Your task to perform on an android device: open device folders in google photos Image 0: 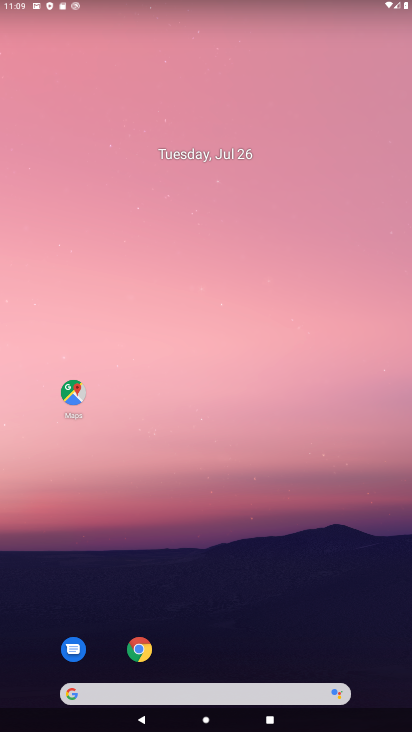
Step 0: drag from (217, 612) to (197, 125)
Your task to perform on an android device: open device folders in google photos Image 1: 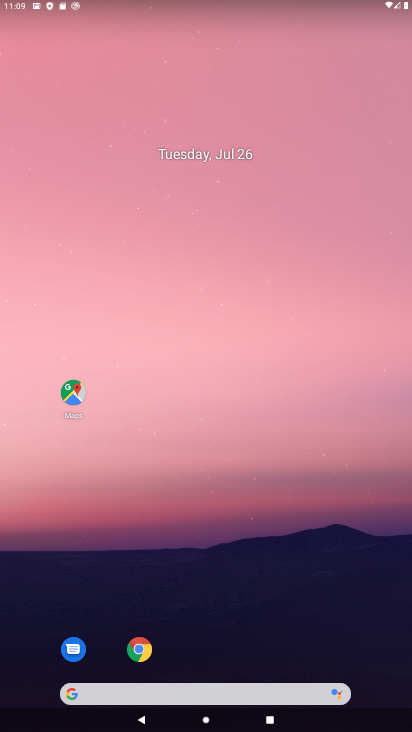
Step 1: drag from (304, 538) to (252, 257)
Your task to perform on an android device: open device folders in google photos Image 2: 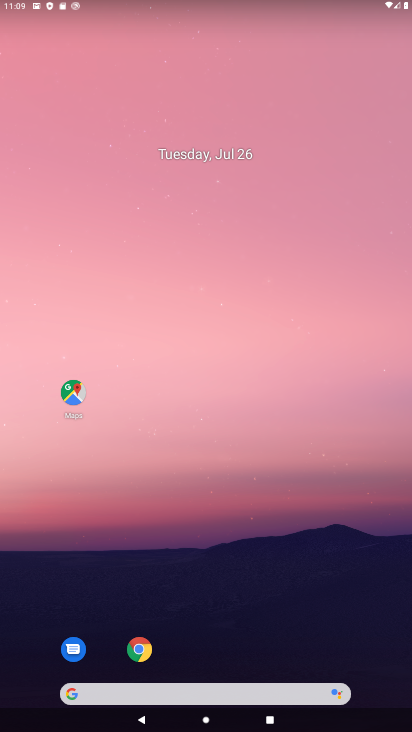
Step 2: drag from (302, 592) to (283, 260)
Your task to perform on an android device: open device folders in google photos Image 3: 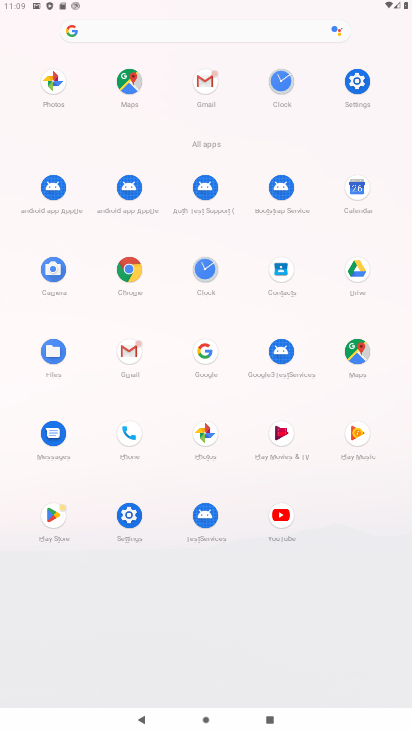
Step 3: drag from (320, 491) to (197, 41)
Your task to perform on an android device: open device folders in google photos Image 4: 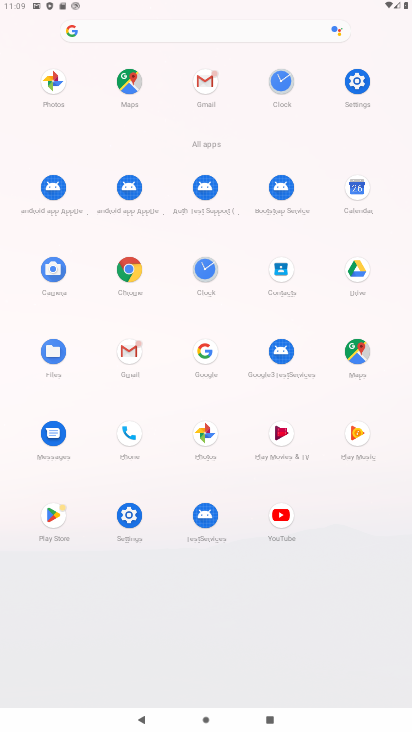
Step 4: click (212, 434)
Your task to perform on an android device: open device folders in google photos Image 5: 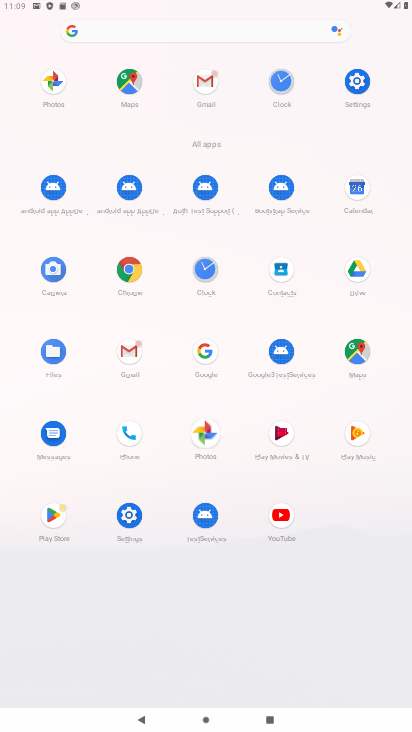
Step 5: click (209, 434)
Your task to perform on an android device: open device folders in google photos Image 6: 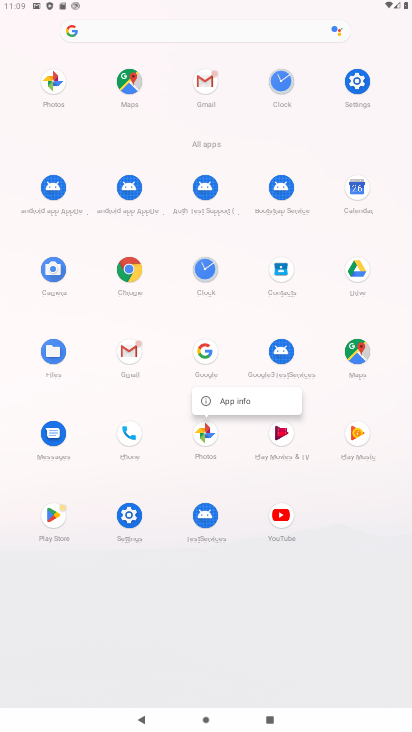
Step 6: click (212, 427)
Your task to perform on an android device: open device folders in google photos Image 7: 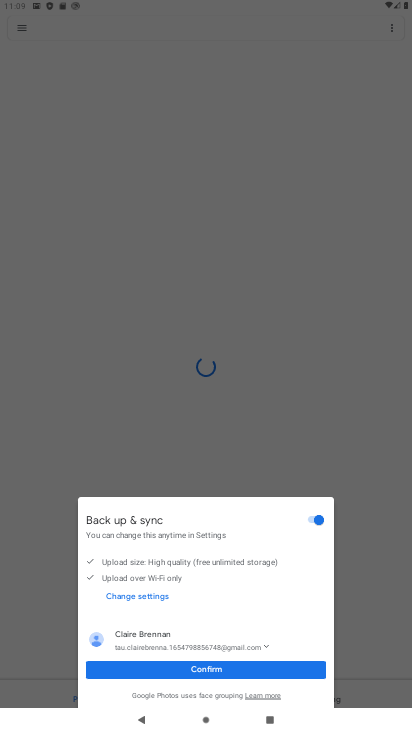
Step 7: click (212, 663)
Your task to perform on an android device: open device folders in google photos Image 8: 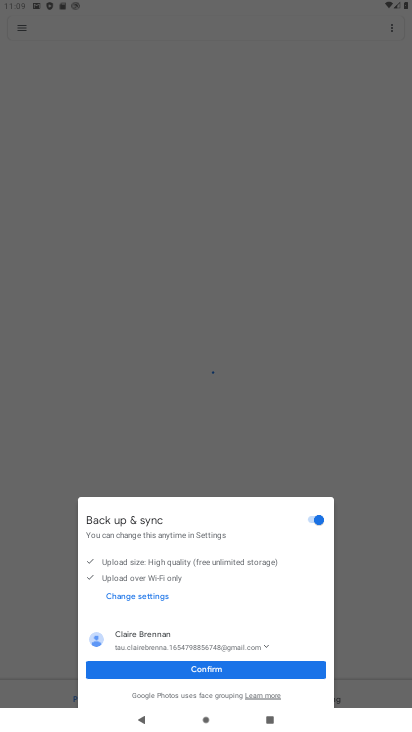
Step 8: click (214, 665)
Your task to perform on an android device: open device folders in google photos Image 9: 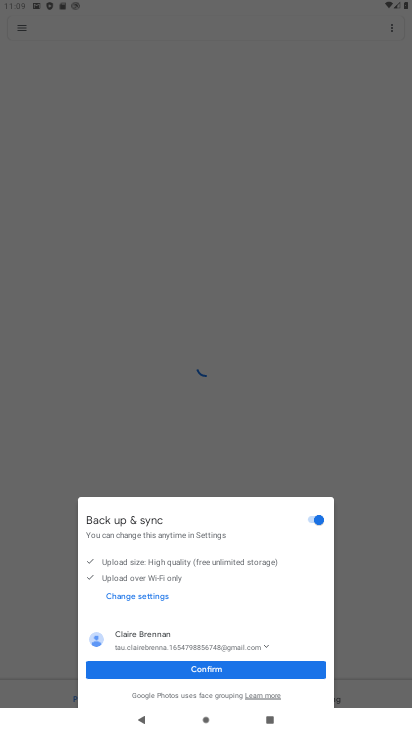
Step 9: click (215, 665)
Your task to perform on an android device: open device folders in google photos Image 10: 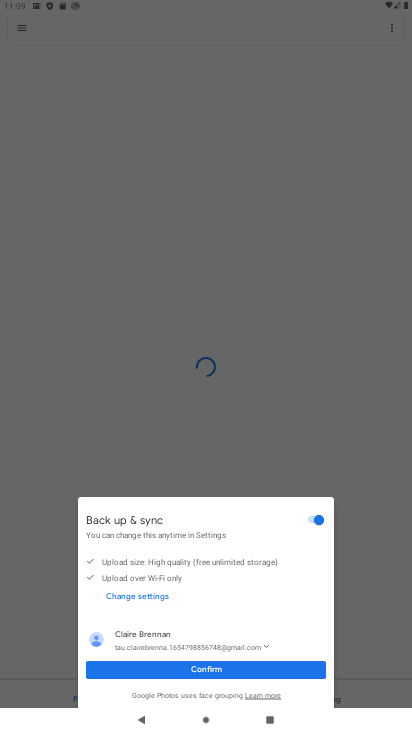
Step 10: click (216, 665)
Your task to perform on an android device: open device folders in google photos Image 11: 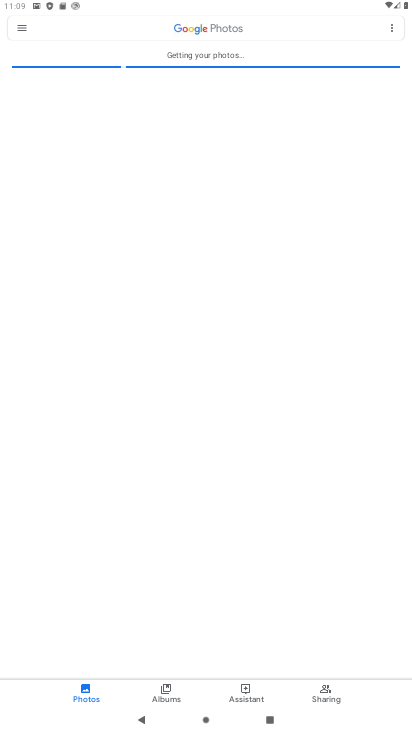
Step 11: click (17, 23)
Your task to perform on an android device: open device folders in google photos Image 12: 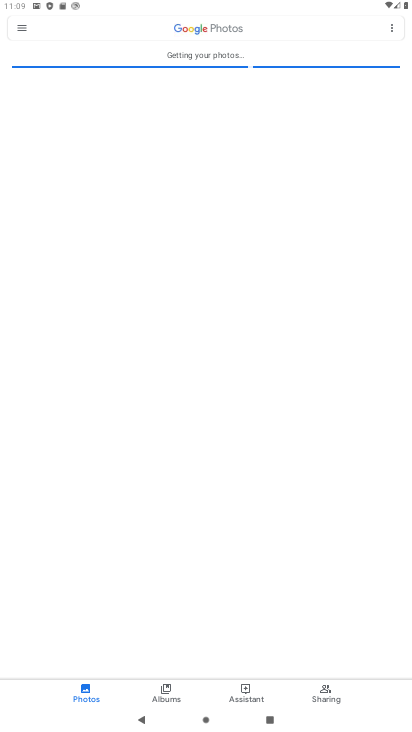
Step 12: click (23, 31)
Your task to perform on an android device: open device folders in google photos Image 13: 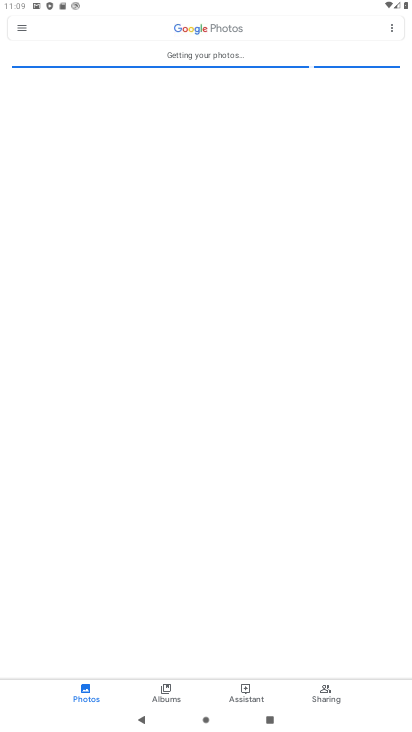
Step 13: click (24, 26)
Your task to perform on an android device: open device folders in google photos Image 14: 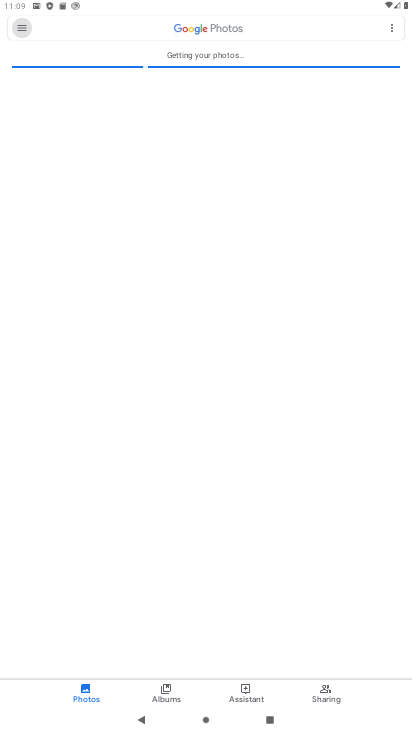
Step 14: click (23, 29)
Your task to perform on an android device: open device folders in google photos Image 15: 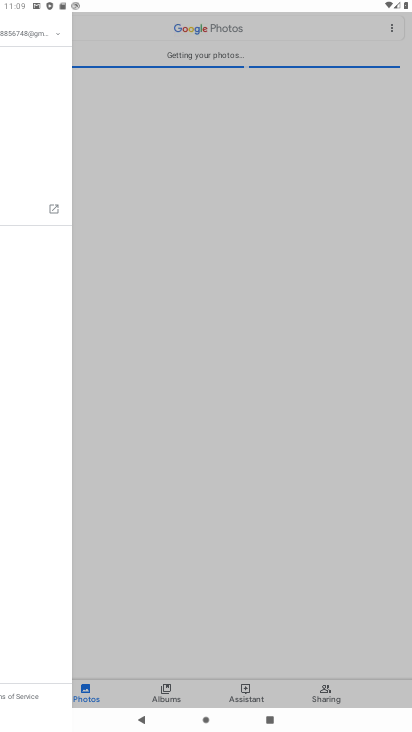
Step 15: click (23, 31)
Your task to perform on an android device: open device folders in google photos Image 16: 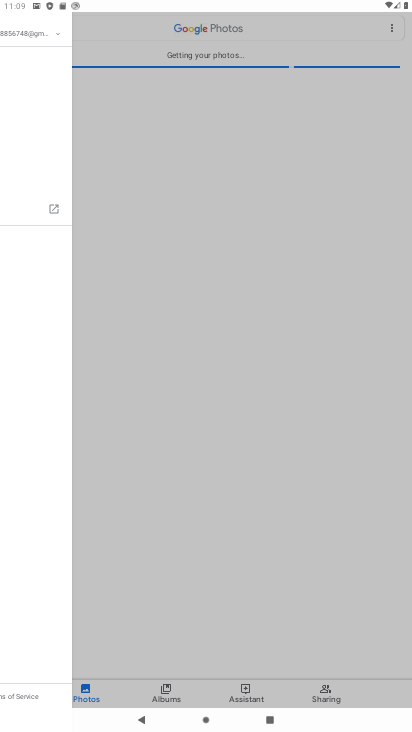
Step 16: click (25, 33)
Your task to perform on an android device: open device folders in google photos Image 17: 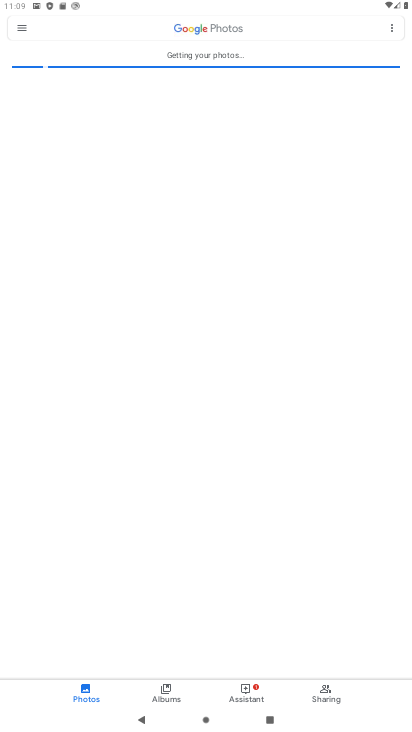
Step 17: click (28, 20)
Your task to perform on an android device: open device folders in google photos Image 18: 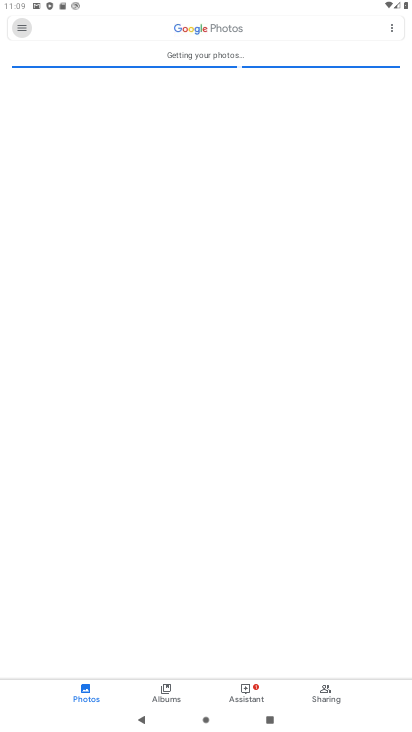
Step 18: click (24, 26)
Your task to perform on an android device: open device folders in google photos Image 19: 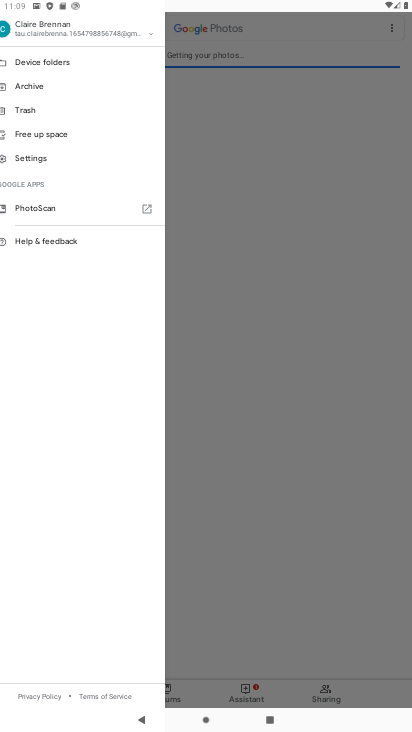
Step 19: drag from (29, 24) to (63, 70)
Your task to perform on an android device: open device folders in google photos Image 20: 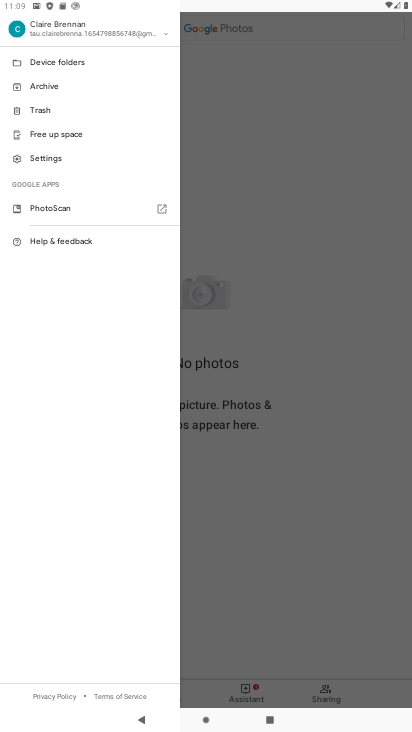
Step 20: click (62, 65)
Your task to perform on an android device: open device folders in google photos Image 21: 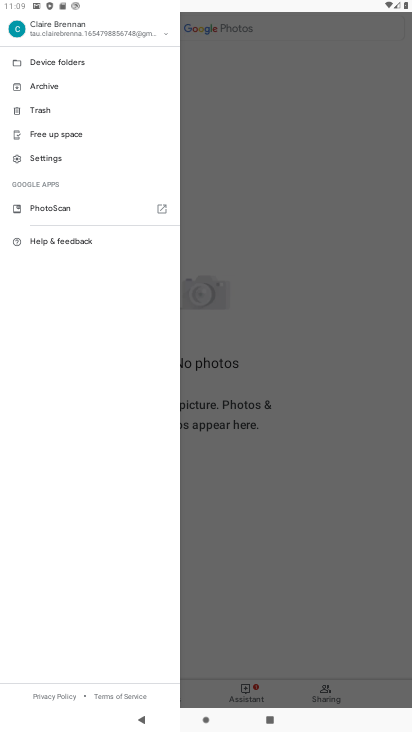
Step 21: click (65, 59)
Your task to perform on an android device: open device folders in google photos Image 22: 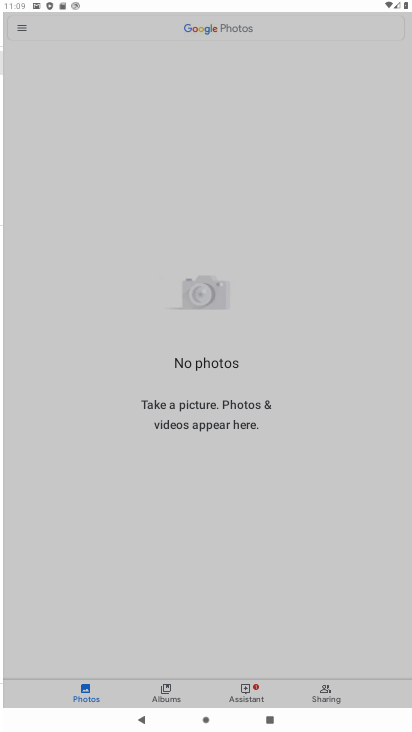
Step 22: click (66, 56)
Your task to perform on an android device: open device folders in google photos Image 23: 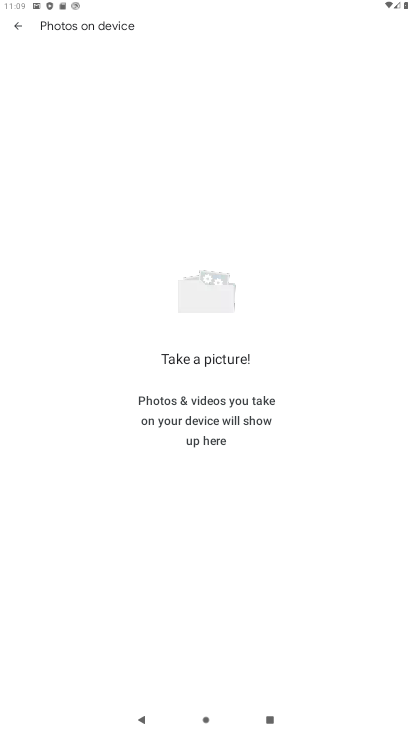
Step 23: task complete